Your task to perform on an android device: check battery use Image 0: 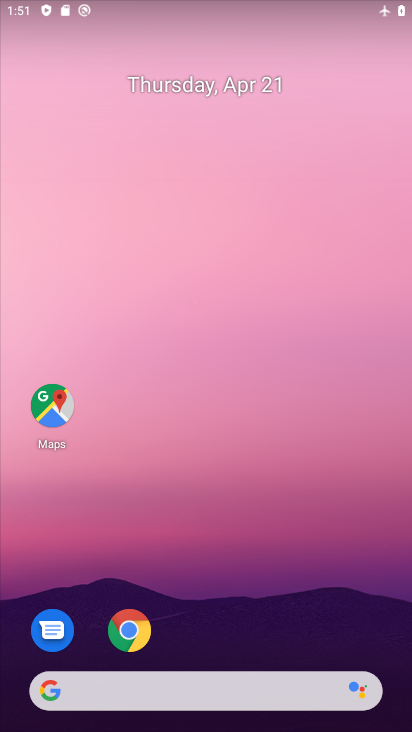
Step 0: drag from (373, 645) to (310, 4)
Your task to perform on an android device: check battery use Image 1: 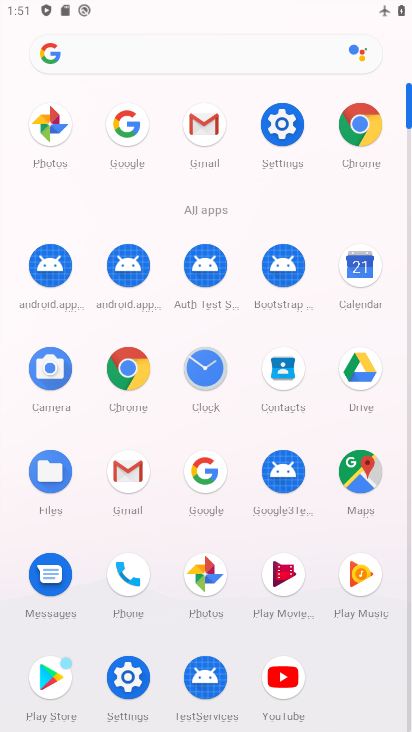
Step 1: click (283, 138)
Your task to perform on an android device: check battery use Image 2: 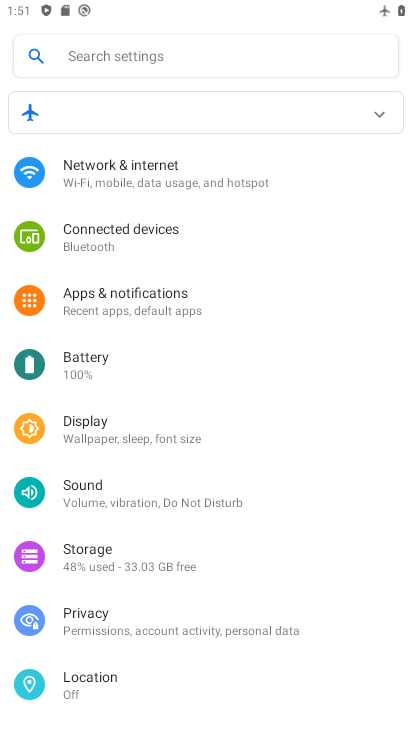
Step 2: click (81, 377)
Your task to perform on an android device: check battery use Image 3: 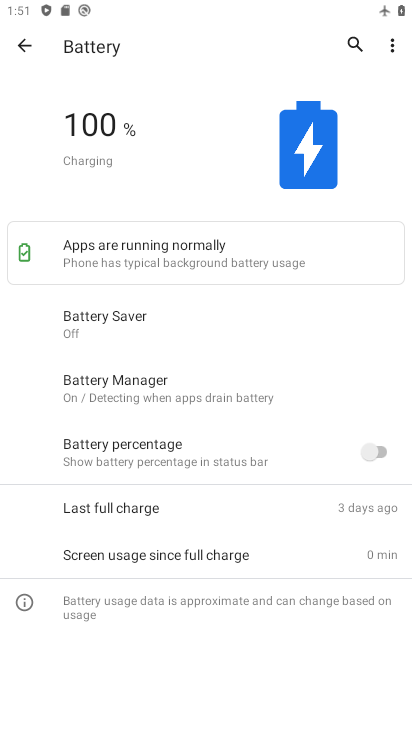
Step 3: click (392, 47)
Your task to perform on an android device: check battery use Image 4: 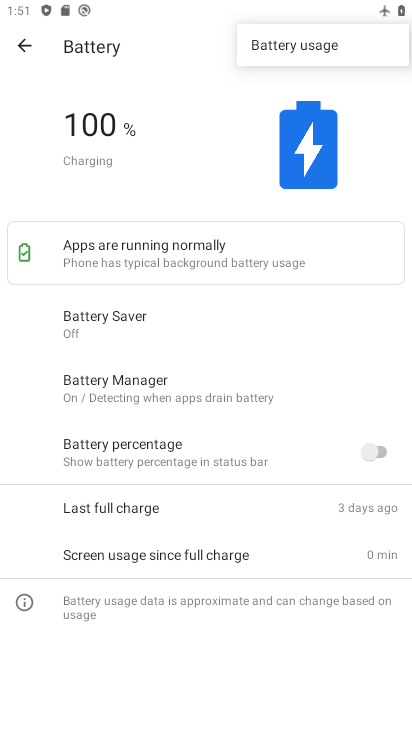
Step 4: click (286, 52)
Your task to perform on an android device: check battery use Image 5: 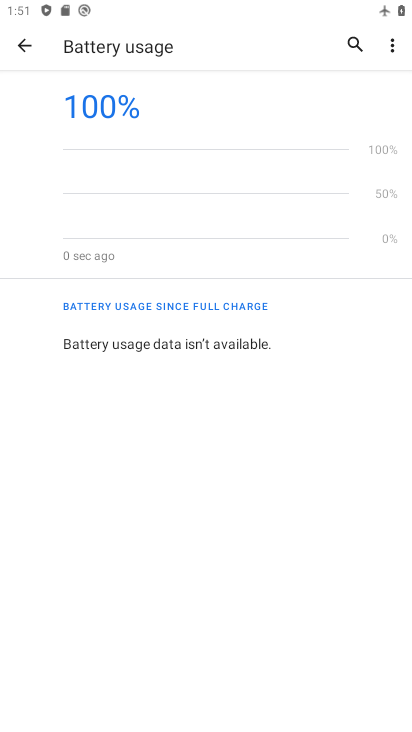
Step 5: task complete